Your task to perform on an android device: toggle improve location accuracy Image 0: 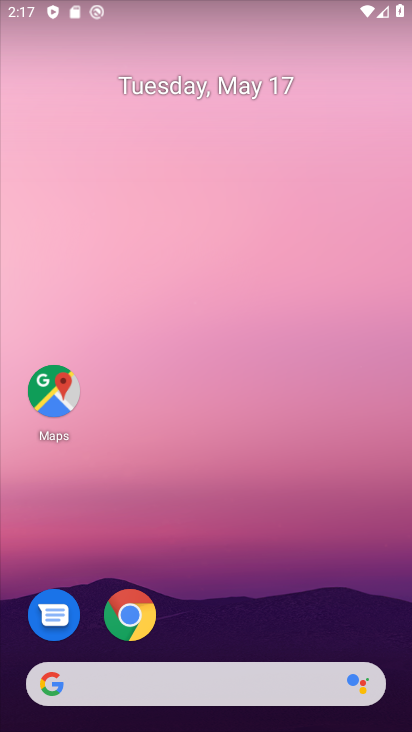
Step 0: drag from (221, 723) to (223, 166)
Your task to perform on an android device: toggle improve location accuracy Image 1: 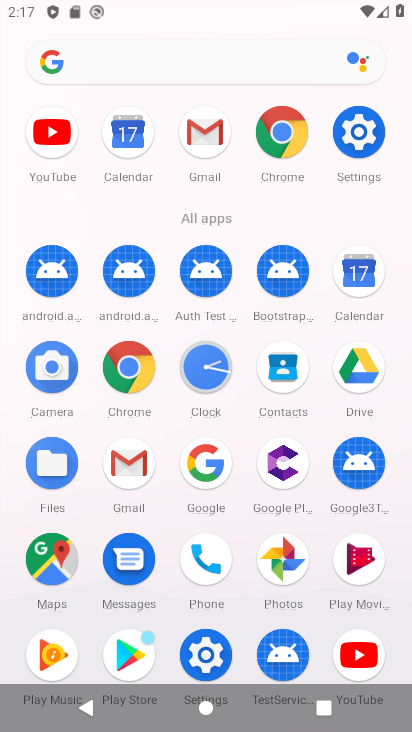
Step 1: click (359, 129)
Your task to perform on an android device: toggle improve location accuracy Image 2: 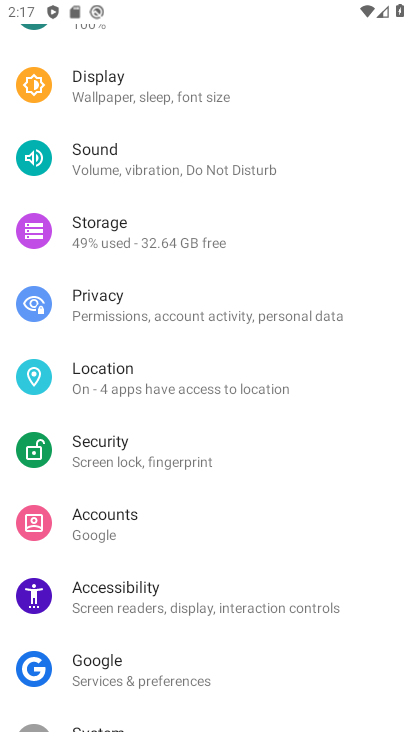
Step 2: drag from (182, 507) to (184, 473)
Your task to perform on an android device: toggle improve location accuracy Image 3: 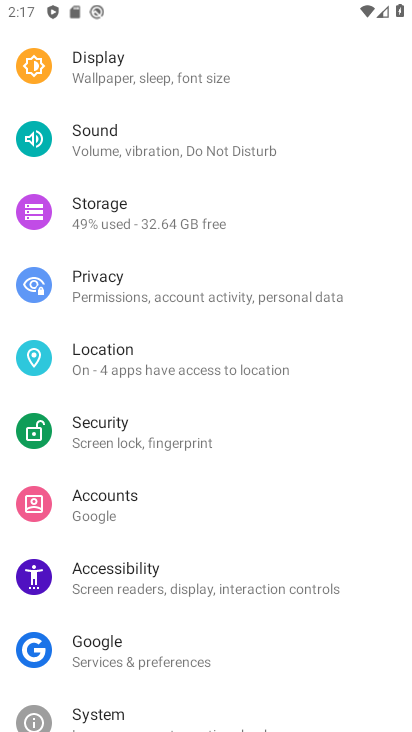
Step 3: click (110, 360)
Your task to perform on an android device: toggle improve location accuracy Image 4: 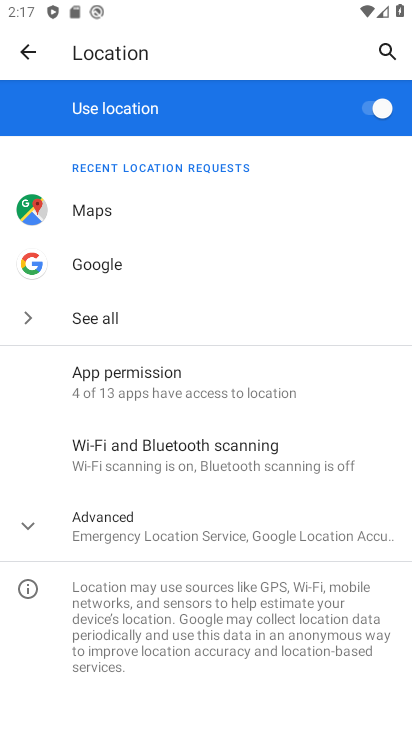
Step 4: click (139, 525)
Your task to perform on an android device: toggle improve location accuracy Image 5: 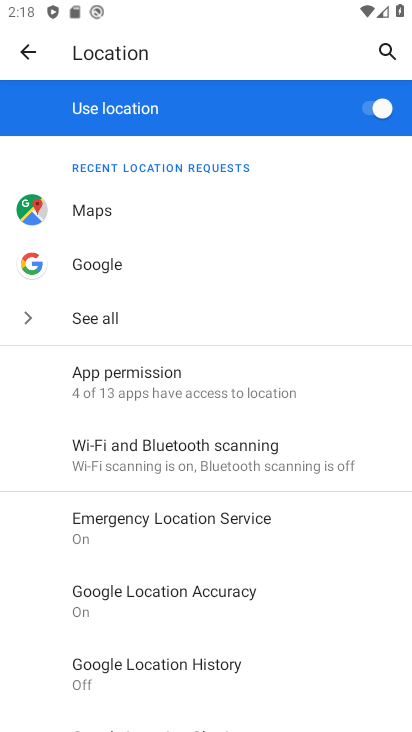
Step 5: click (177, 596)
Your task to perform on an android device: toggle improve location accuracy Image 6: 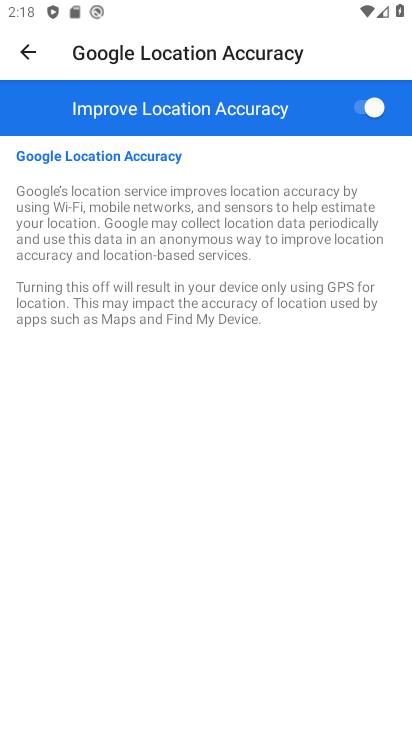
Step 6: click (363, 107)
Your task to perform on an android device: toggle improve location accuracy Image 7: 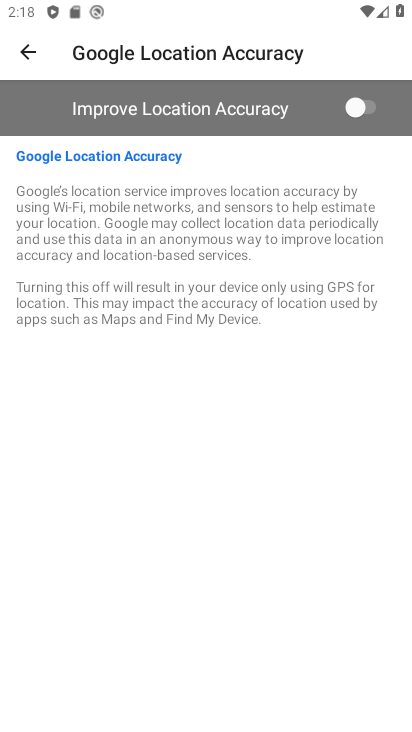
Step 7: task complete